Your task to perform on an android device: turn pop-ups on in chrome Image 0: 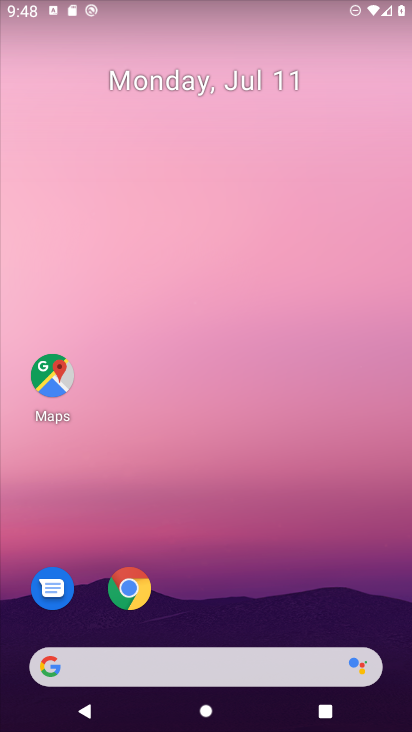
Step 0: drag from (359, 619) to (247, 20)
Your task to perform on an android device: turn pop-ups on in chrome Image 1: 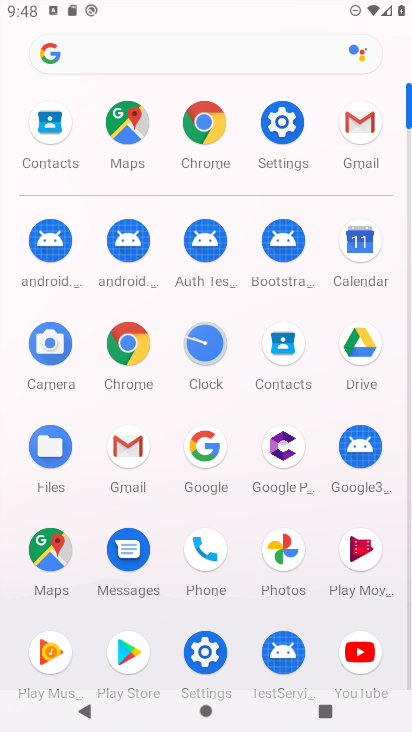
Step 1: click (210, 121)
Your task to perform on an android device: turn pop-ups on in chrome Image 2: 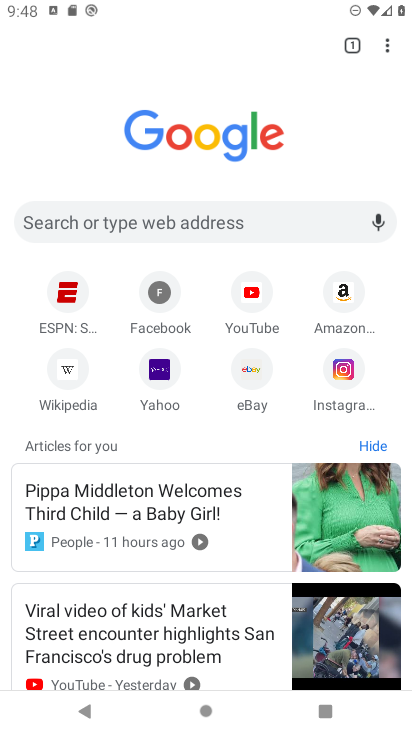
Step 2: click (389, 51)
Your task to perform on an android device: turn pop-ups on in chrome Image 3: 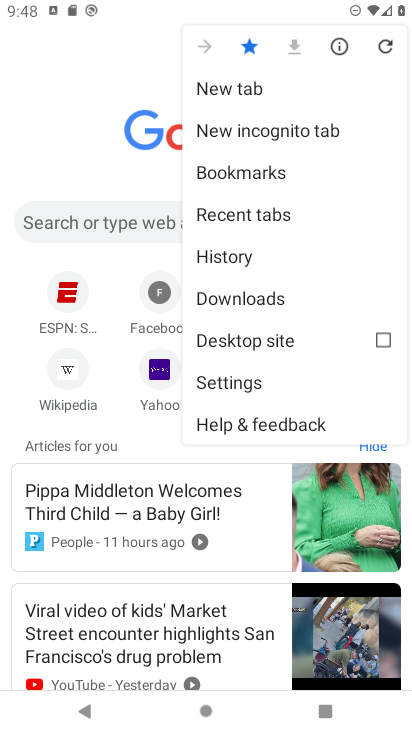
Step 3: click (253, 389)
Your task to perform on an android device: turn pop-ups on in chrome Image 4: 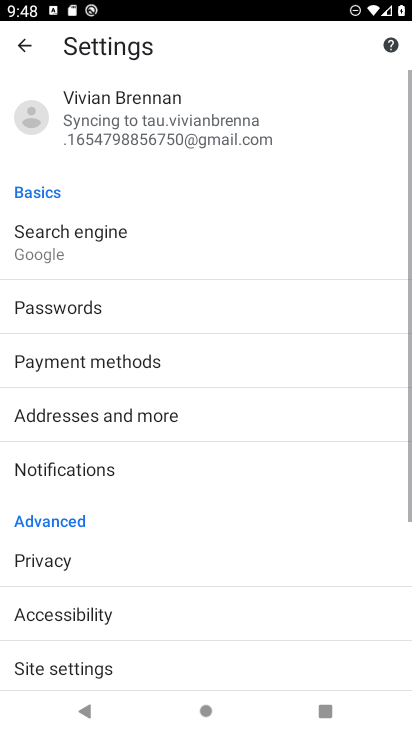
Step 4: click (69, 663)
Your task to perform on an android device: turn pop-ups on in chrome Image 5: 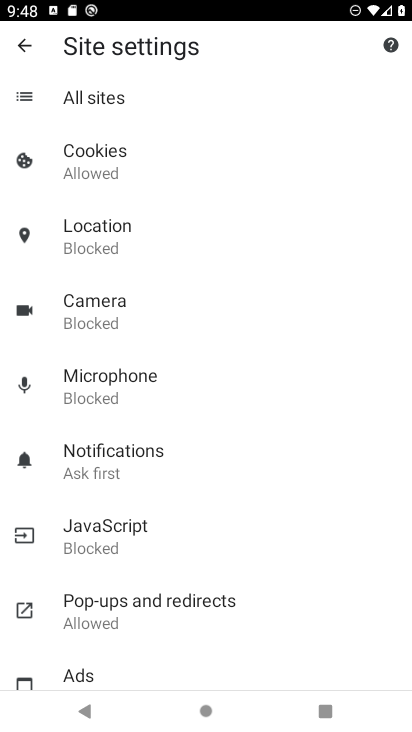
Step 5: click (193, 597)
Your task to perform on an android device: turn pop-ups on in chrome Image 6: 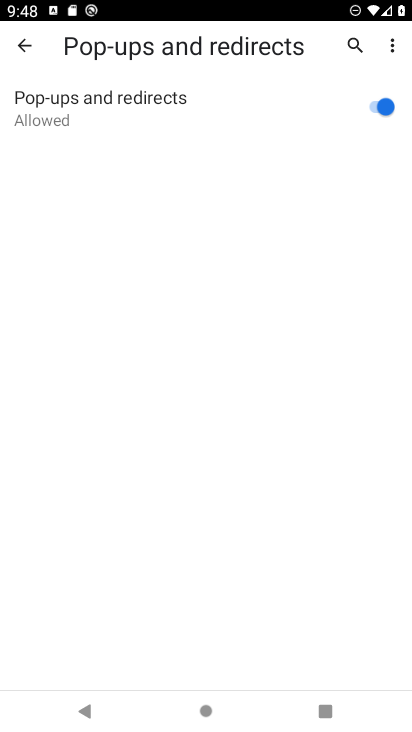
Step 6: task complete